Your task to perform on an android device: Add "logitech g910" to the cart on costco, then select checkout. Image 0: 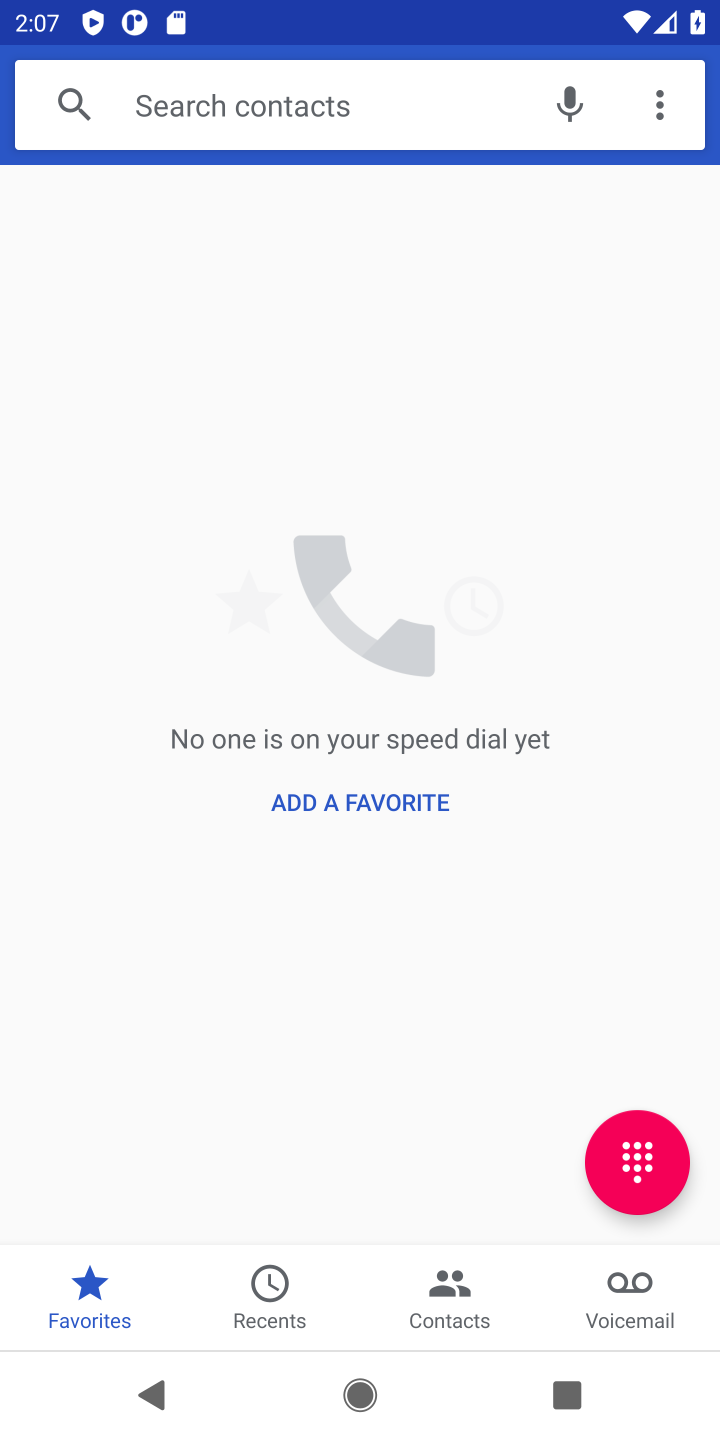
Step 0: press home button
Your task to perform on an android device: Add "logitech g910" to the cart on costco, then select checkout. Image 1: 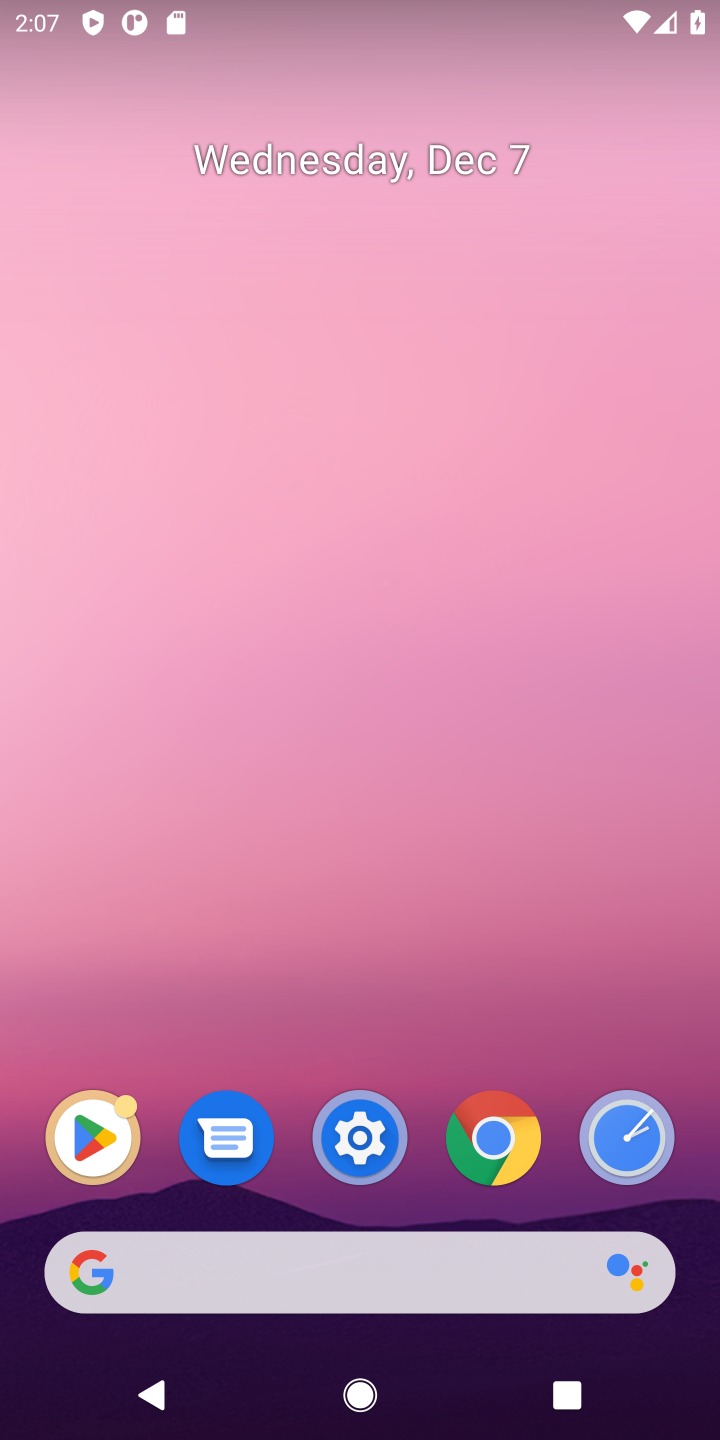
Step 1: click (300, 1264)
Your task to perform on an android device: Add "logitech g910" to the cart on costco, then select checkout. Image 2: 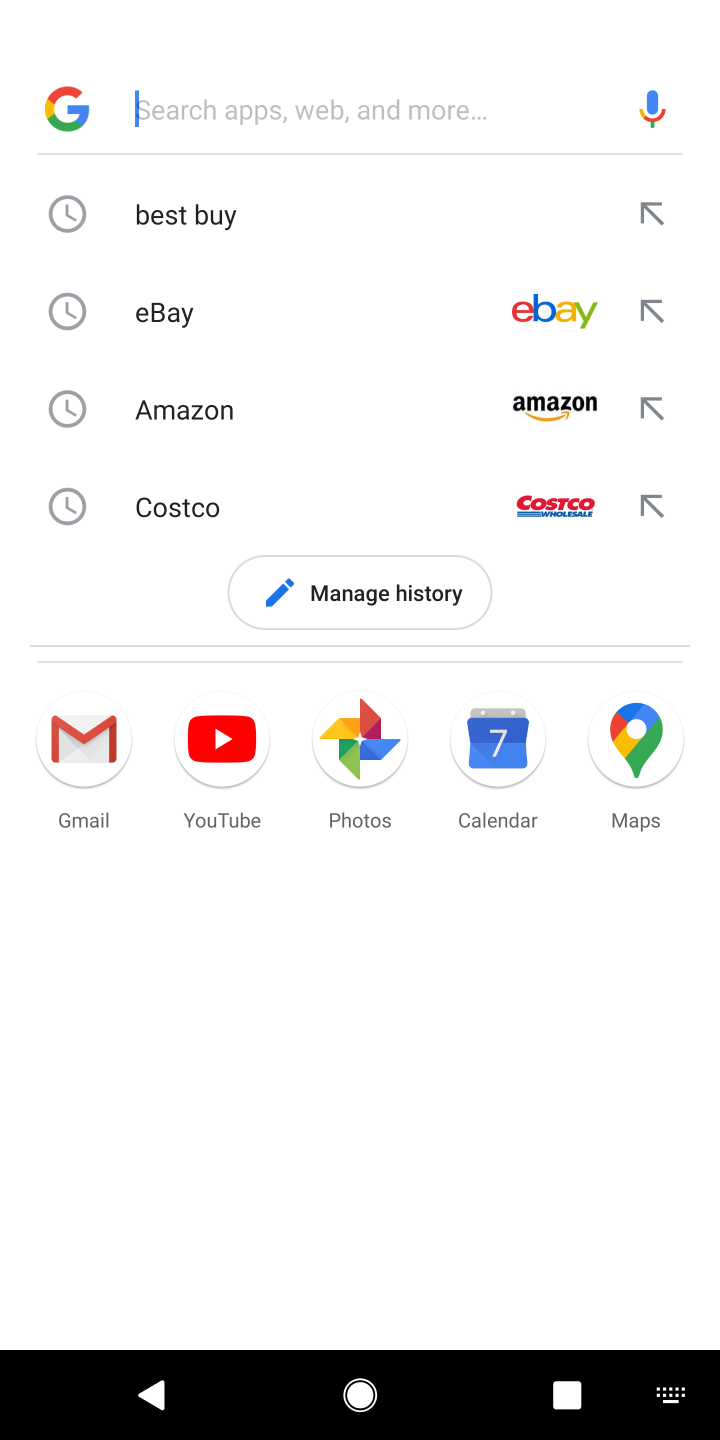
Step 2: type "costco"
Your task to perform on an android device: Add "logitech g910" to the cart on costco, then select checkout. Image 3: 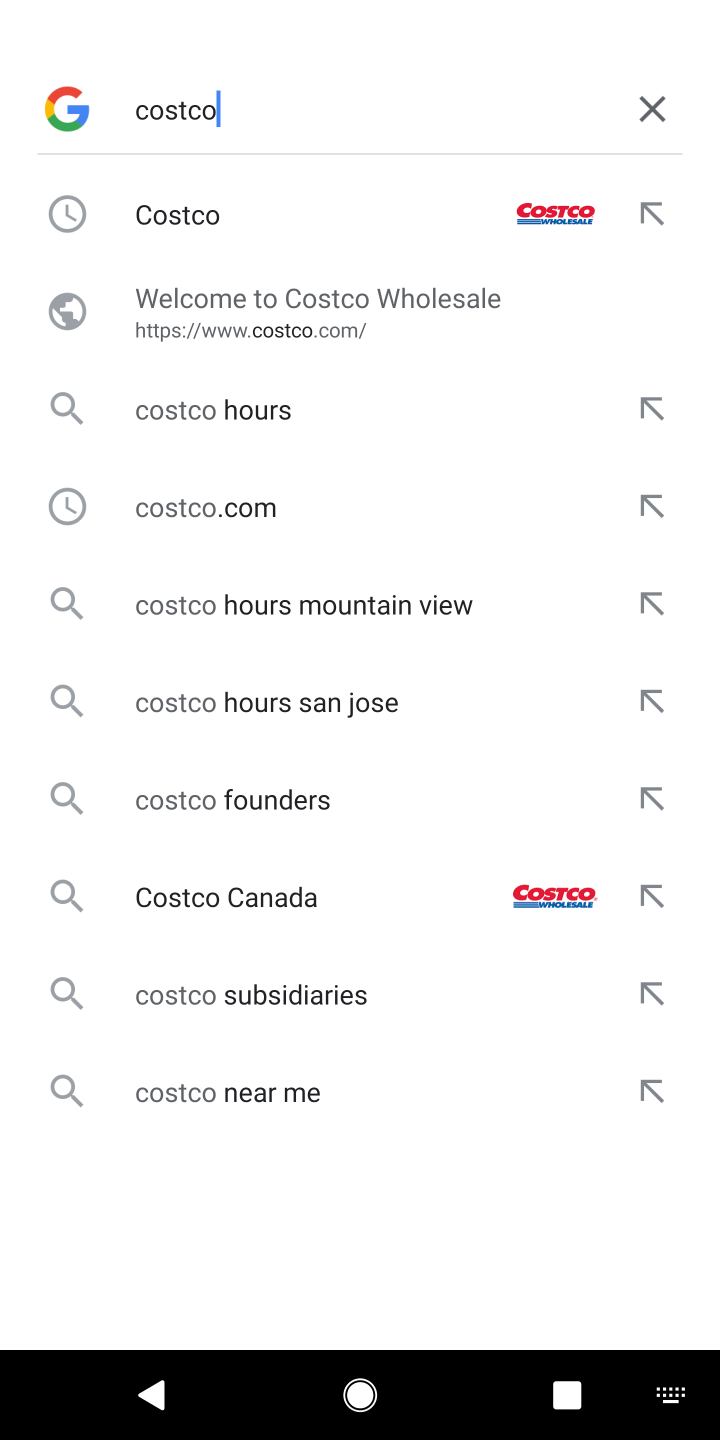
Step 3: click (415, 225)
Your task to perform on an android device: Add "logitech g910" to the cart on costco, then select checkout. Image 4: 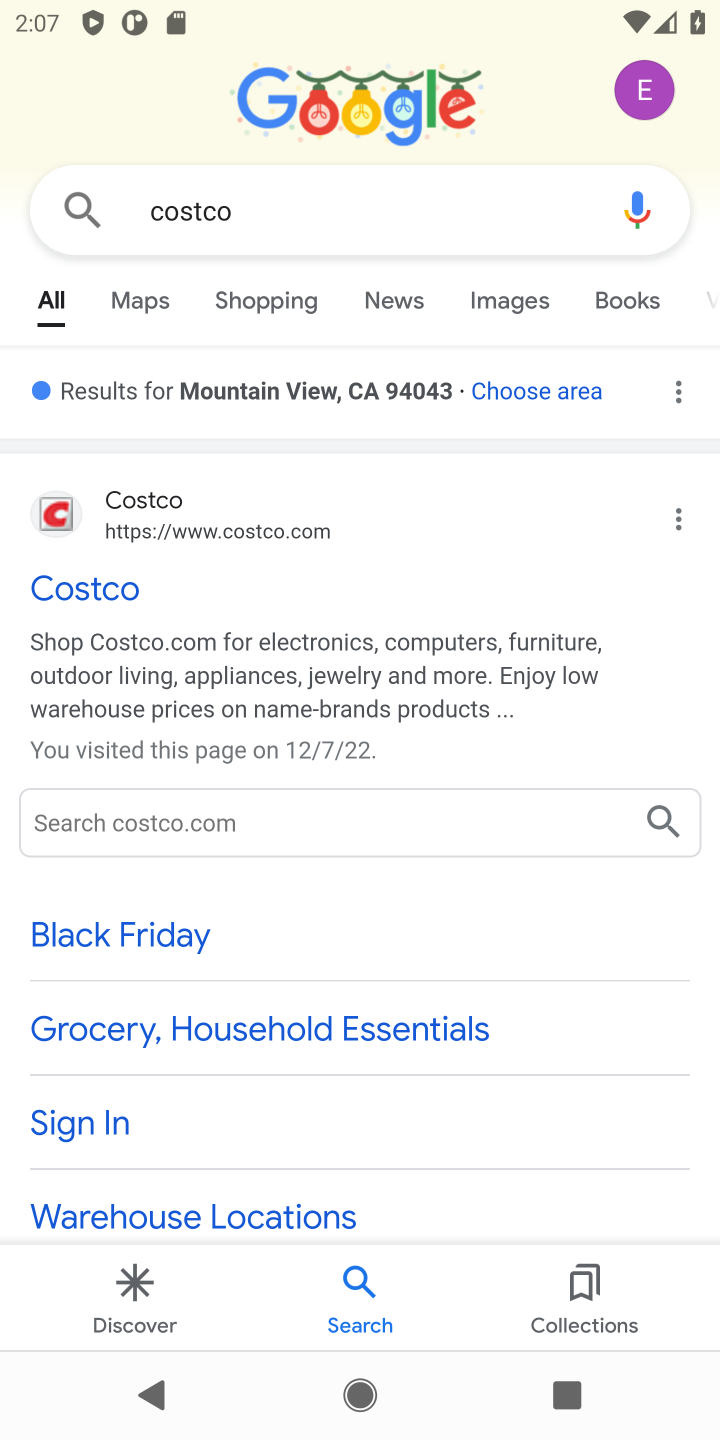
Step 4: click (96, 582)
Your task to perform on an android device: Add "logitech g910" to the cart on costco, then select checkout. Image 5: 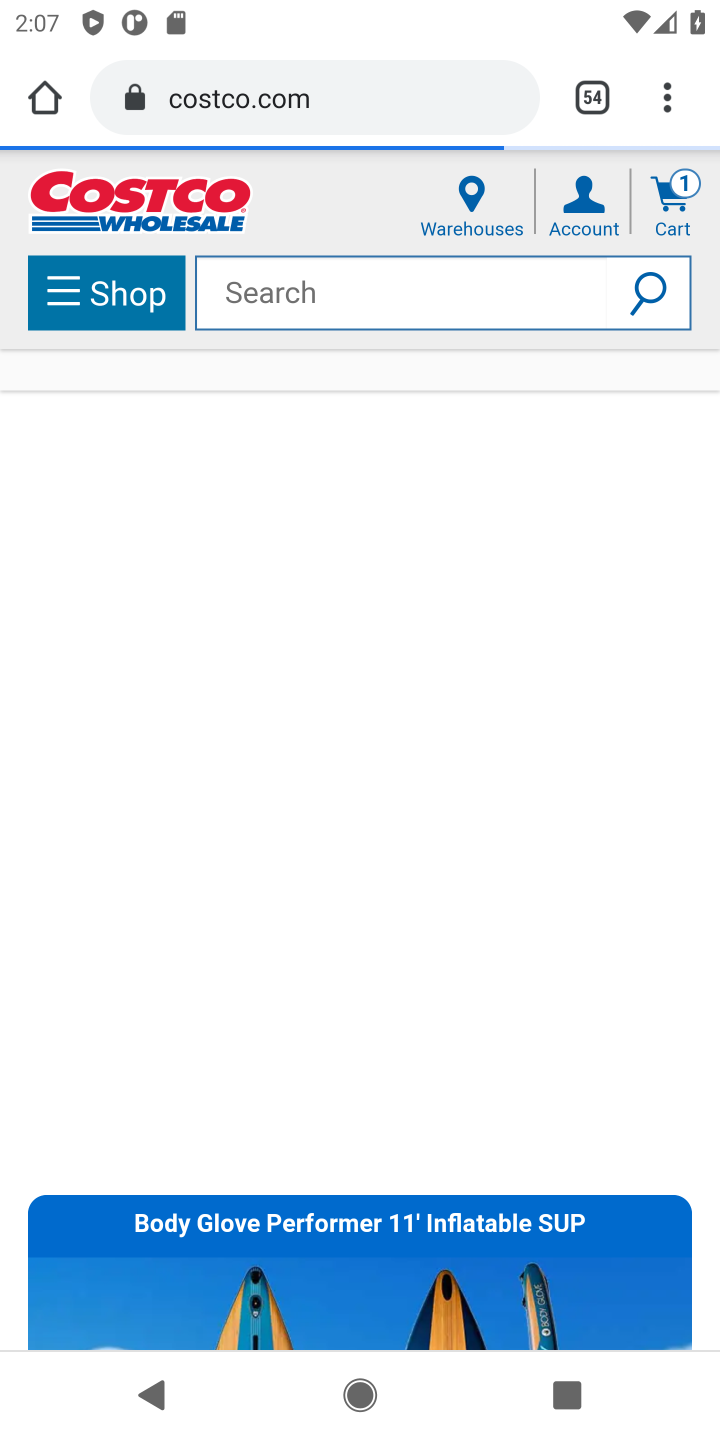
Step 5: click (359, 309)
Your task to perform on an android device: Add "logitech g910" to the cart on costco, then select checkout. Image 6: 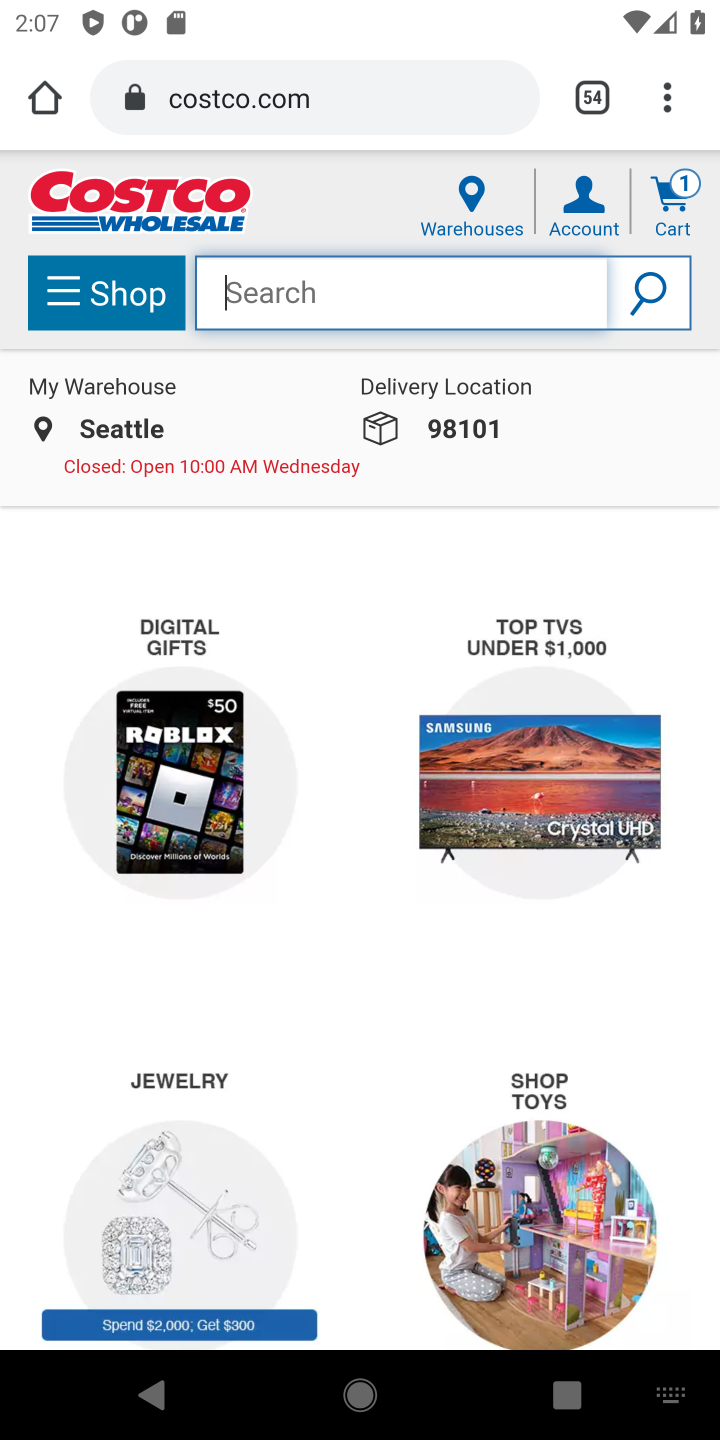
Step 6: type "logitech gpro"
Your task to perform on an android device: Add "logitech g910" to the cart on costco, then select checkout. Image 7: 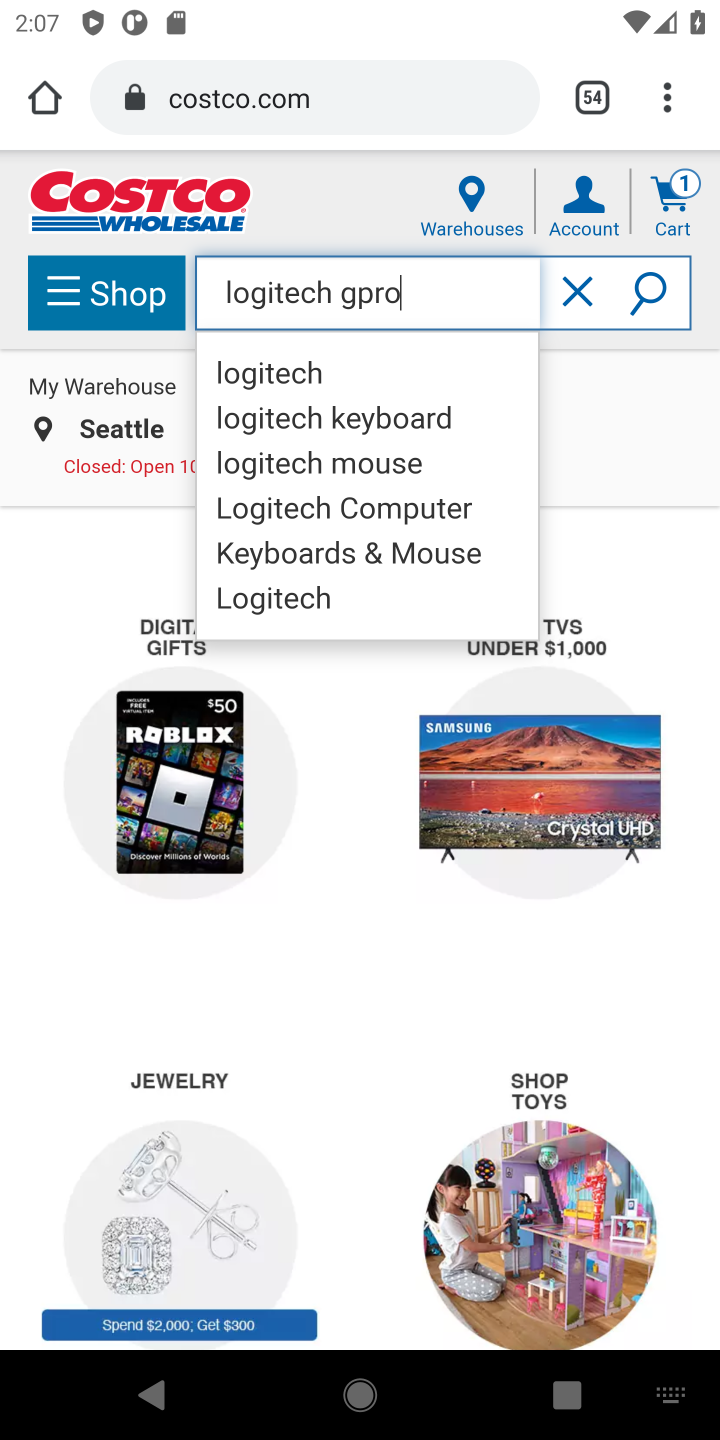
Step 7: click (635, 294)
Your task to perform on an android device: Add "logitech g910" to the cart on costco, then select checkout. Image 8: 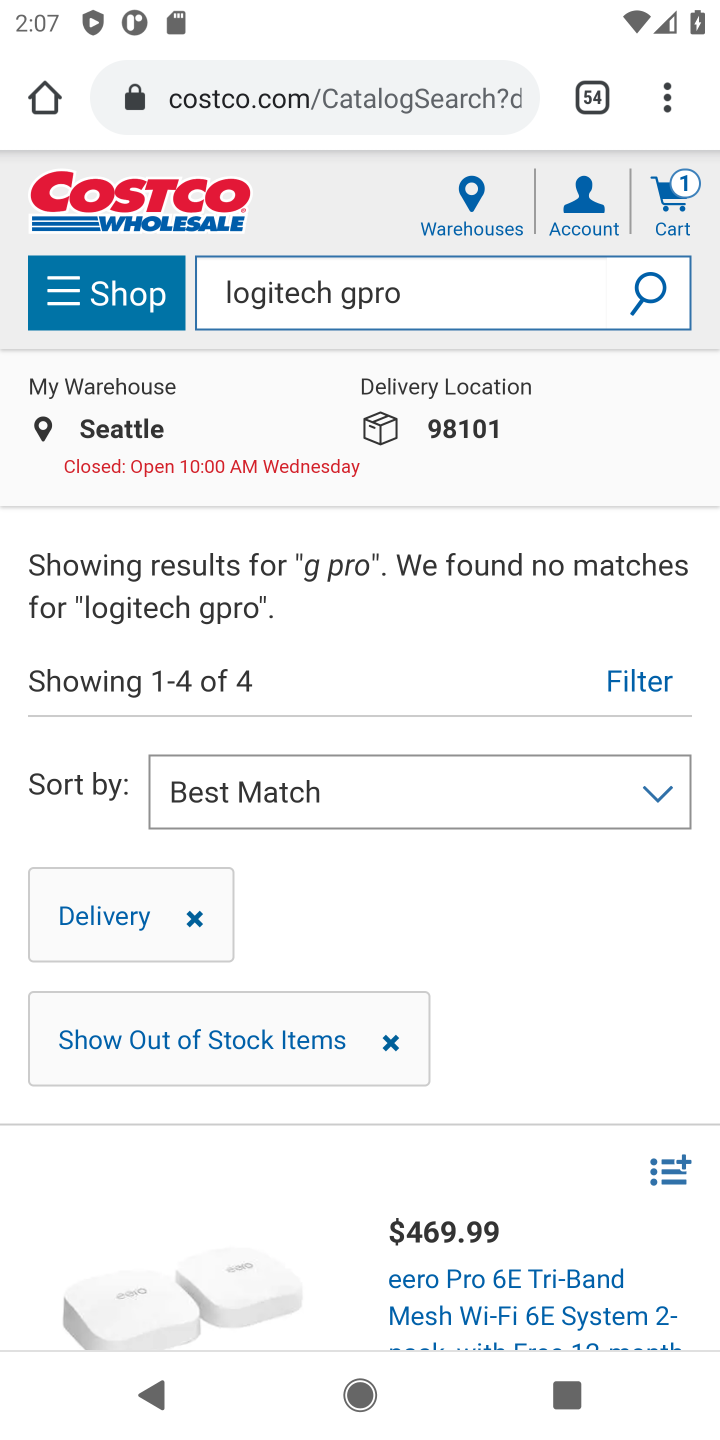
Step 8: click (467, 1329)
Your task to perform on an android device: Add "logitech g910" to the cart on costco, then select checkout. Image 9: 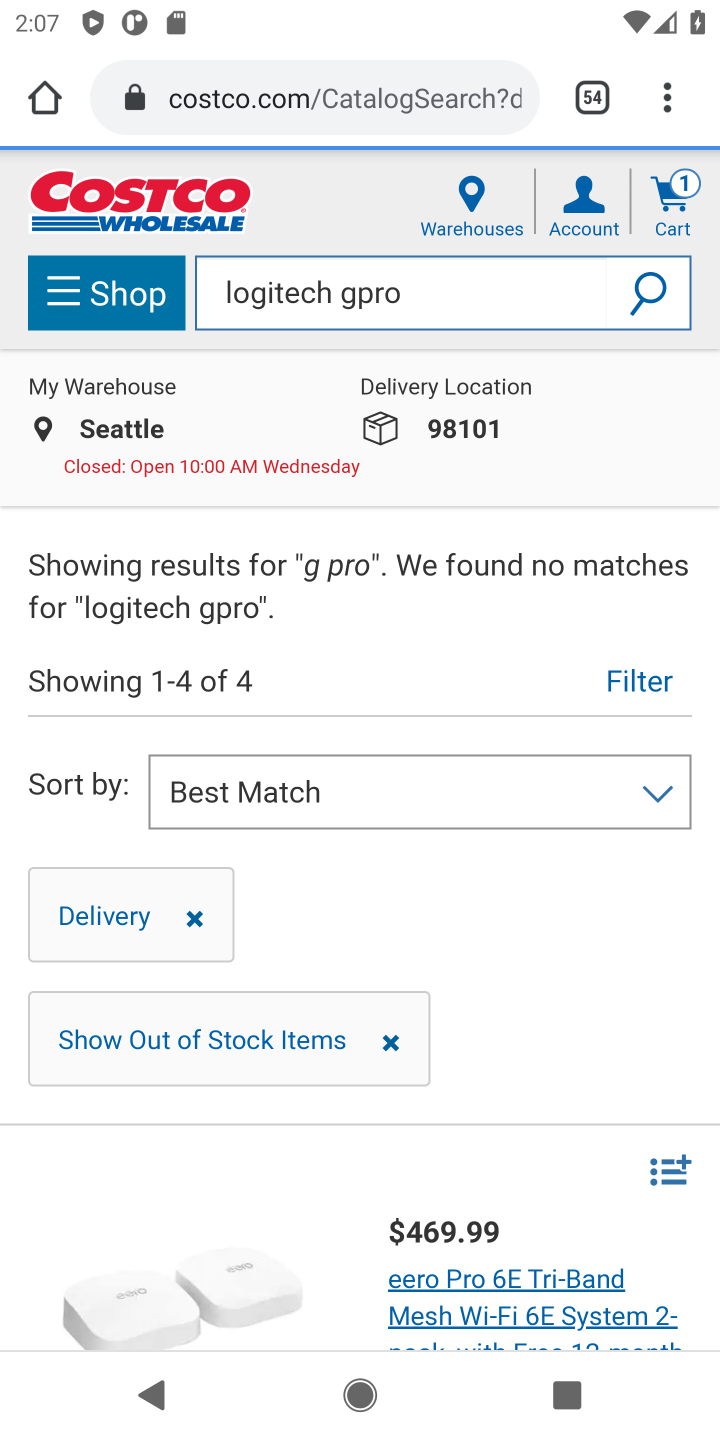
Step 9: task complete